Your task to perform on an android device: open chrome privacy settings Image 0: 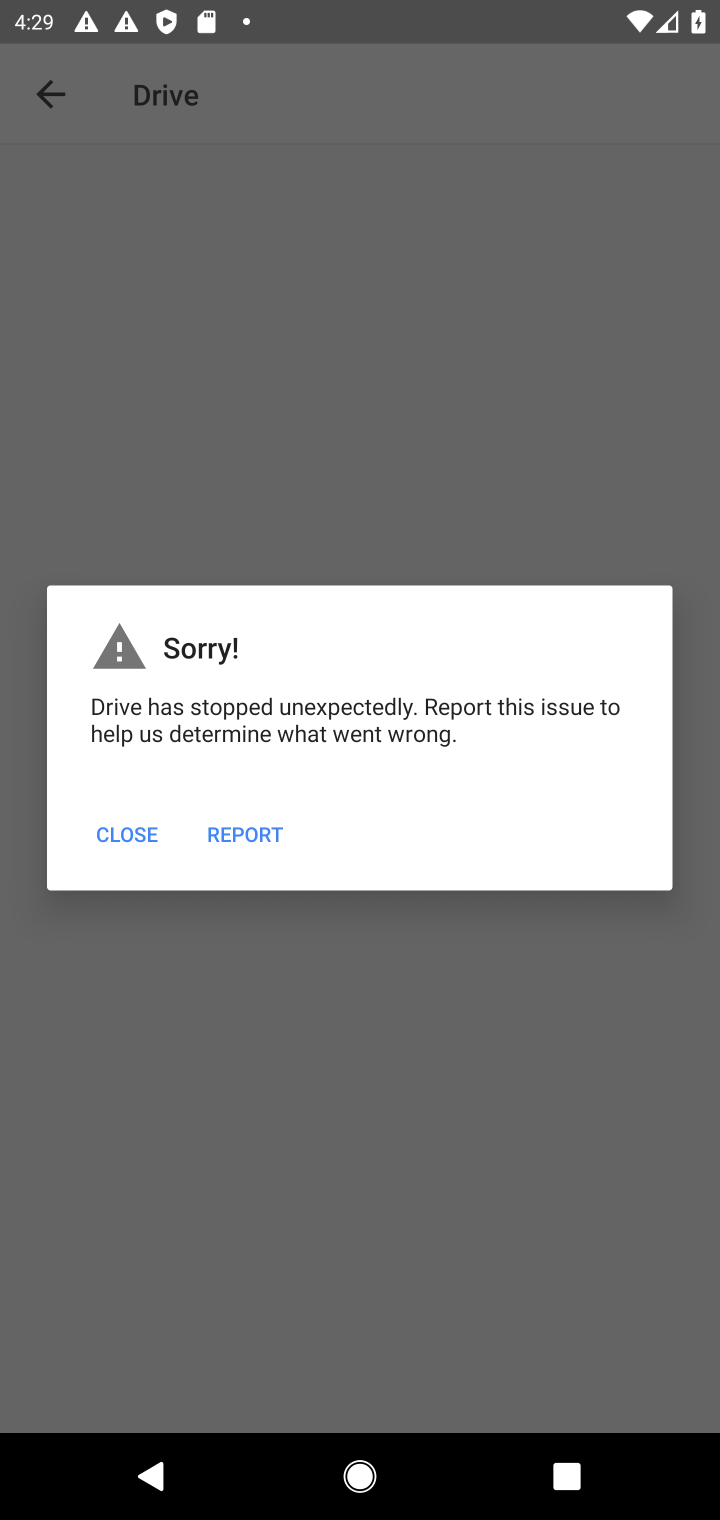
Step 0: click (135, 828)
Your task to perform on an android device: open chrome privacy settings Image 1: 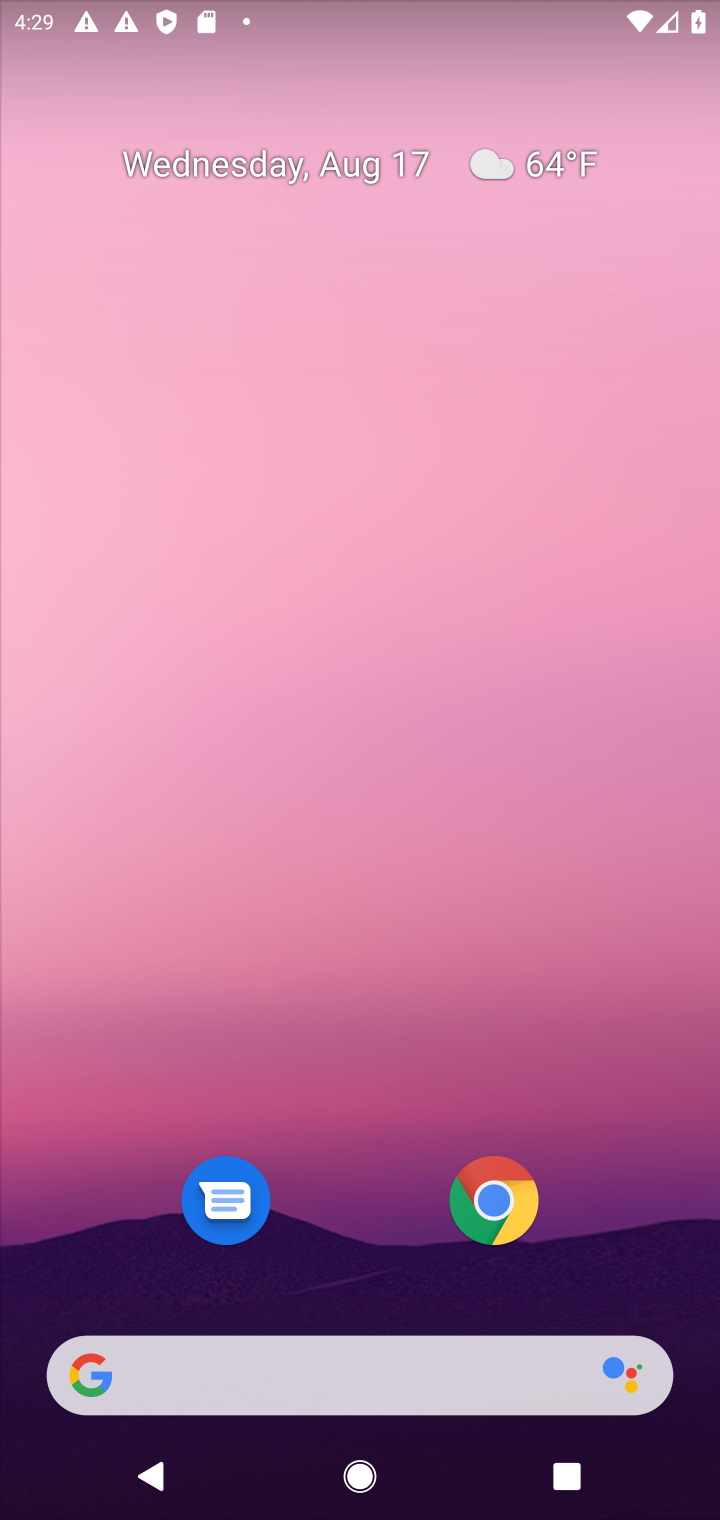
Step 1: click (494, 1208)
Your task to perform on an android device: open chrome privacy settings Image 2: 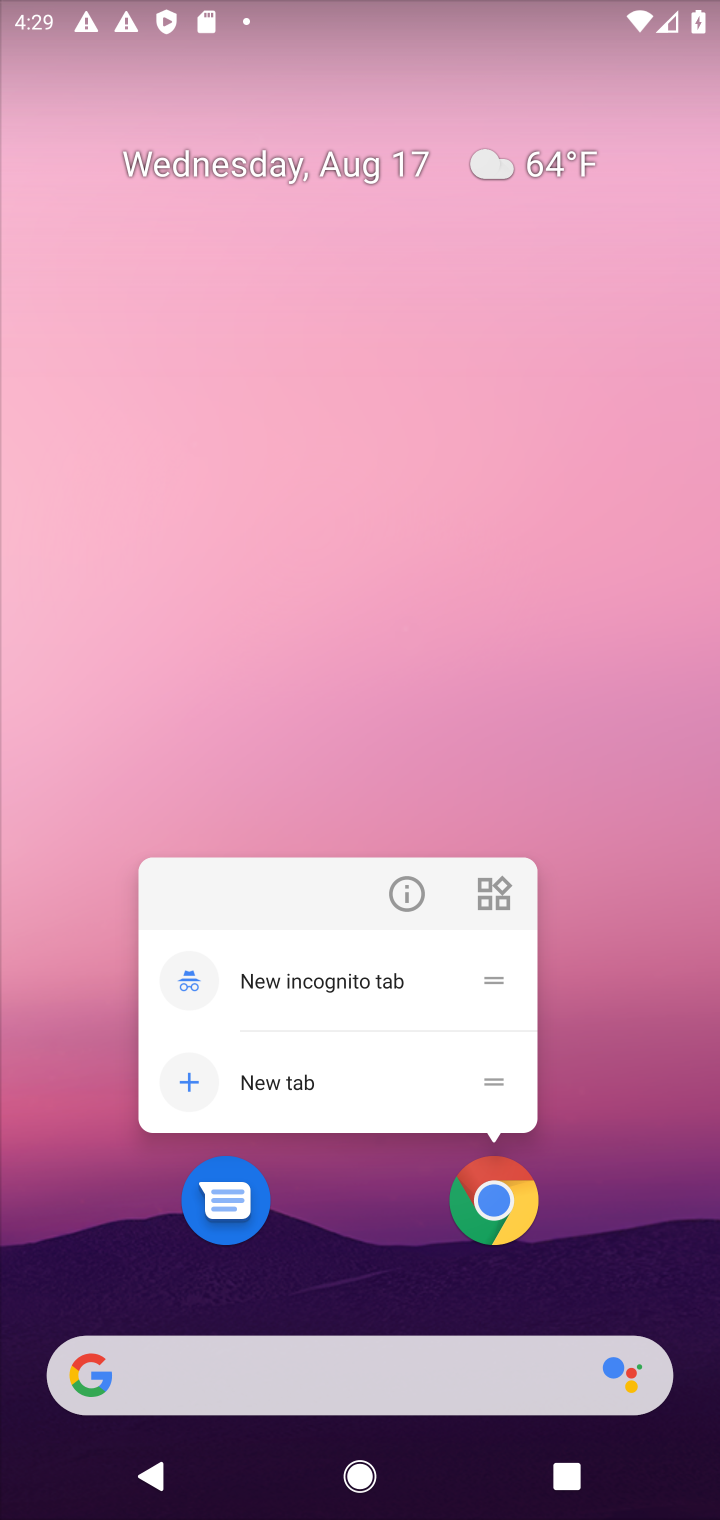
Step 2: click (484, 1199)
Your task to perform on an android device: open chrome privacy settings Image 3: 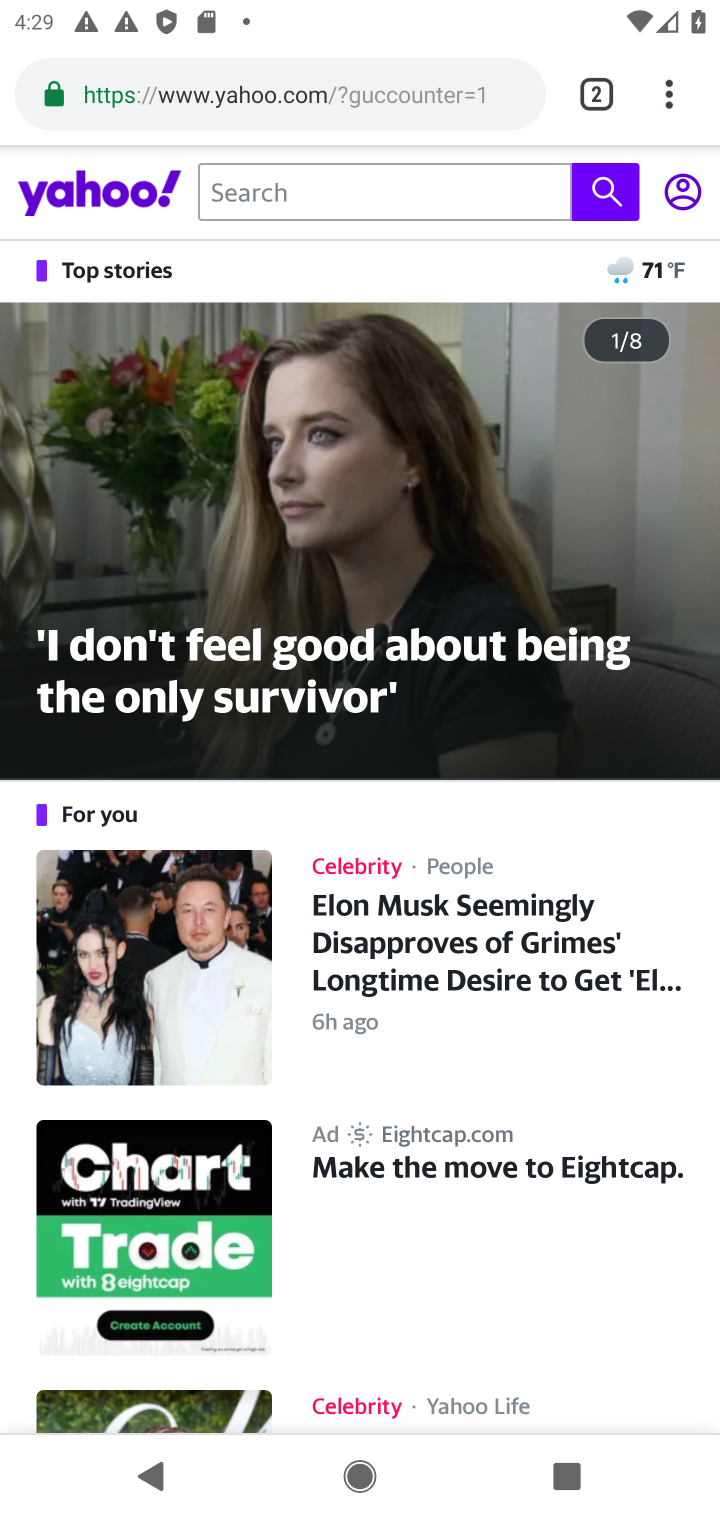
Step 3: click (667, 98)
Your task to perform on an android device: open chrome privacy settings Image 4: 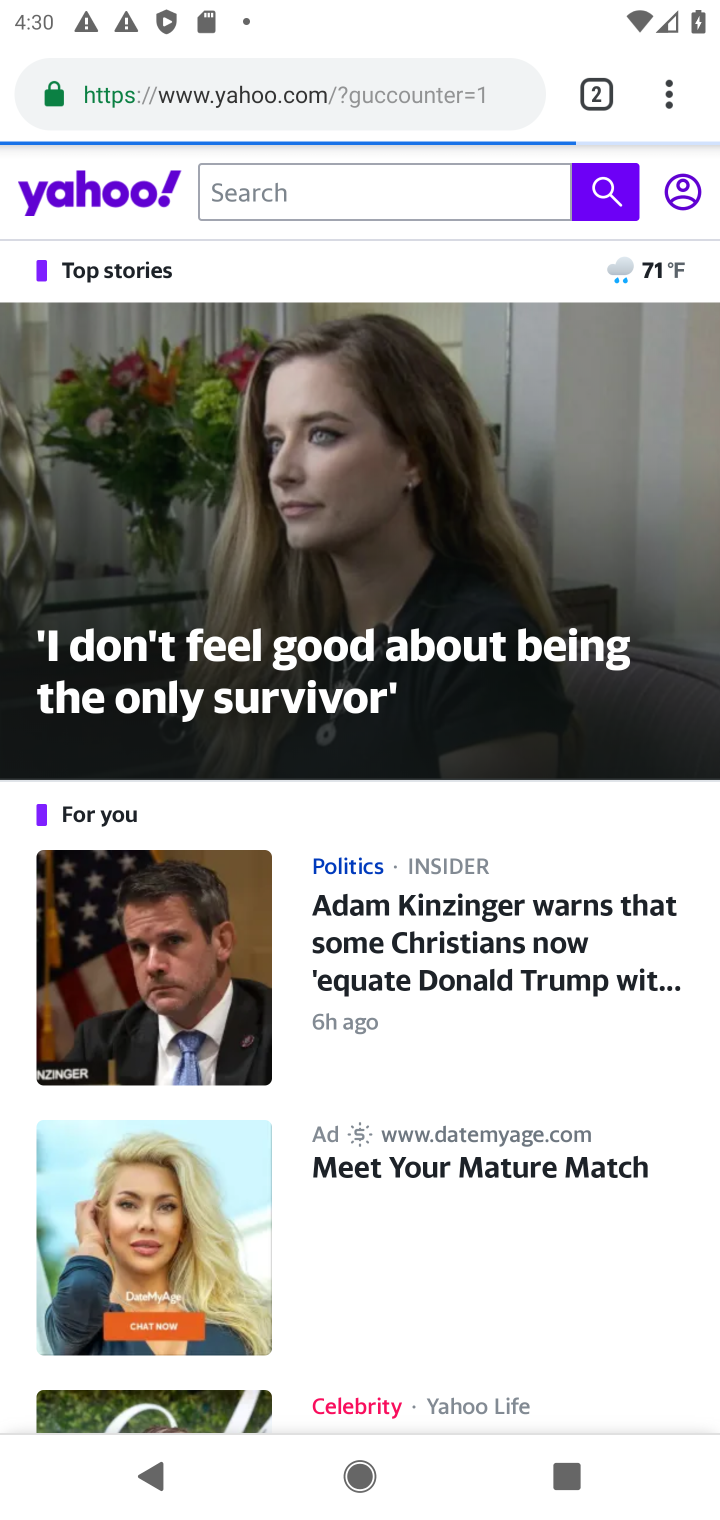
Step 4: drag from (666, 91) to (449, 557)
Your task to perform on an android device: open chrome privacy settings Image 5: 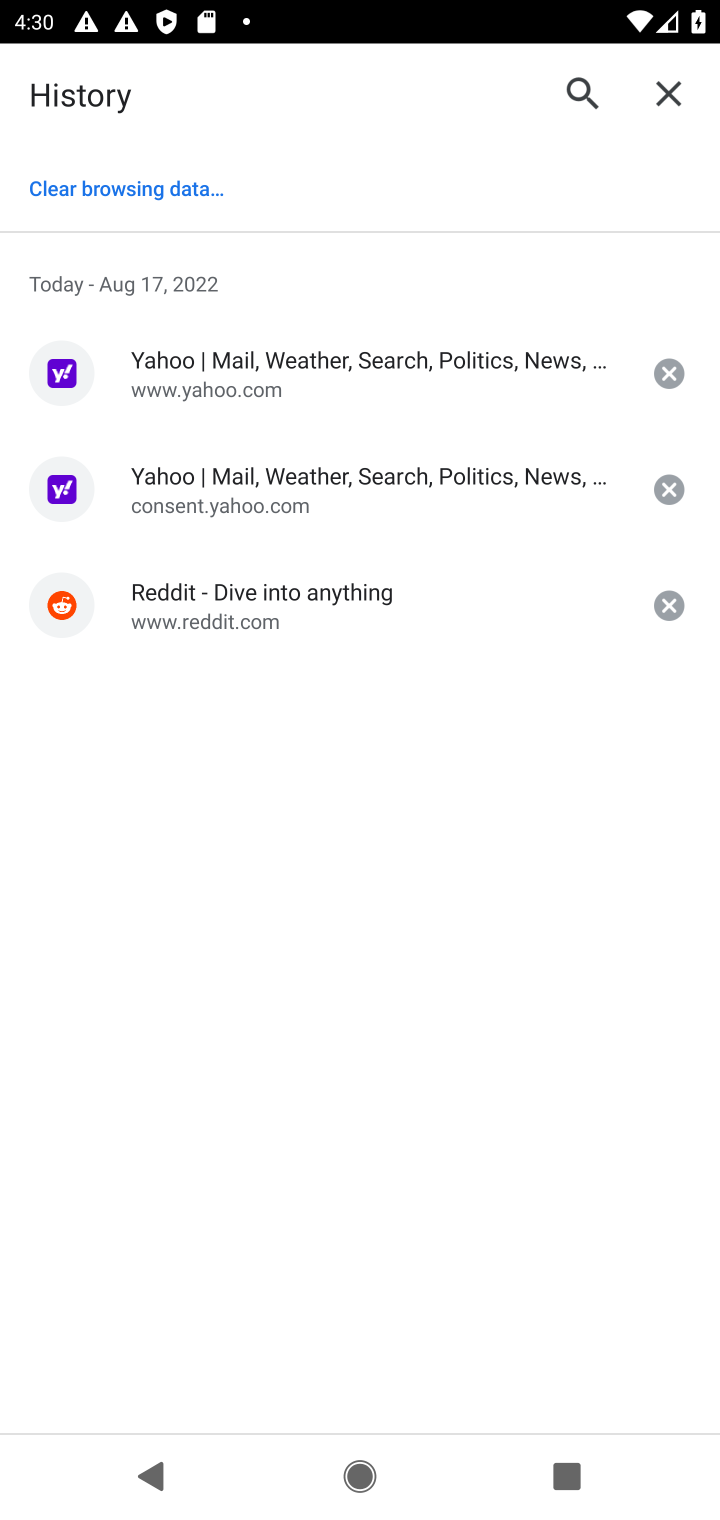
Step 5: click (678, 82)
Your task to perform on an android device: open chrome privacy settings Image 6: 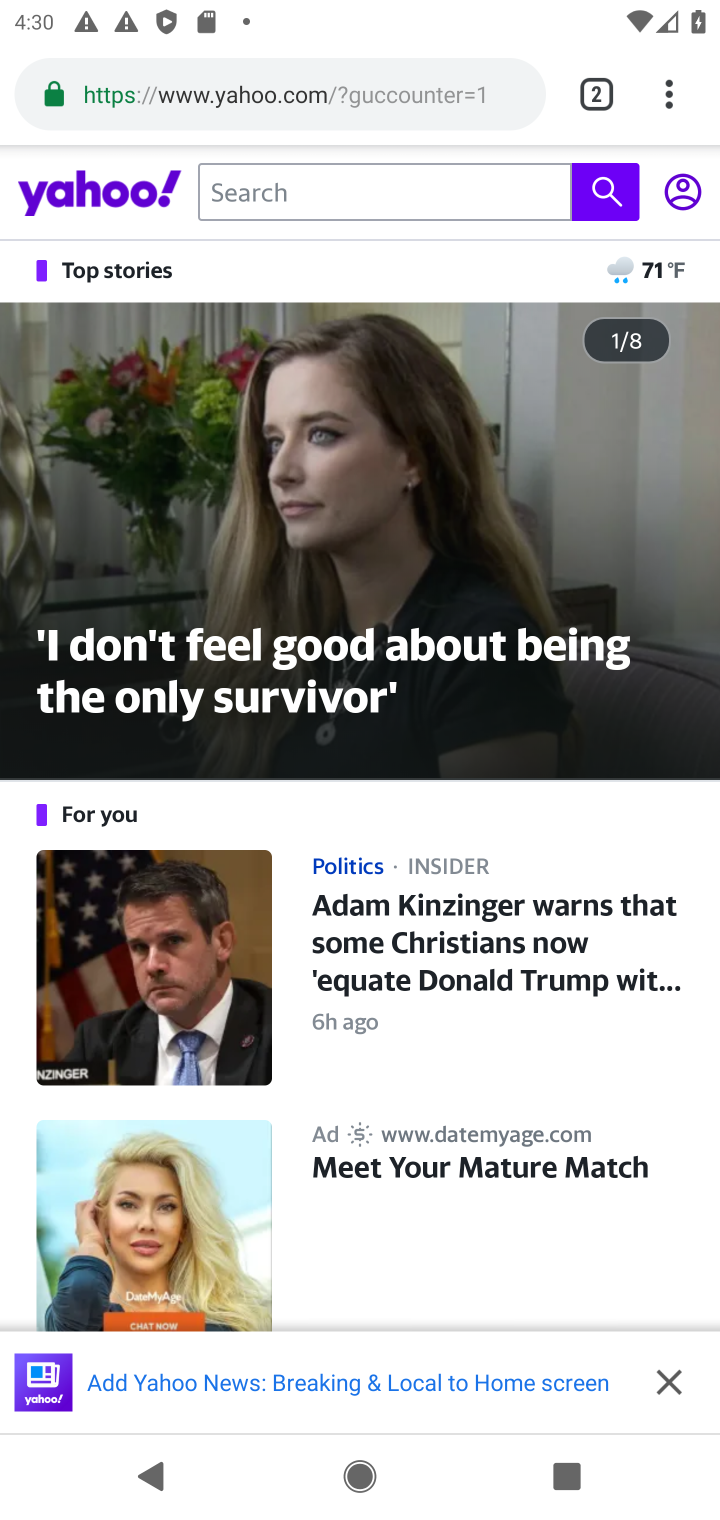
Step 6: drag from (667, 93) to (341, 1118)
Your task to perform on an android device: open chrome privacy settings Image 7: 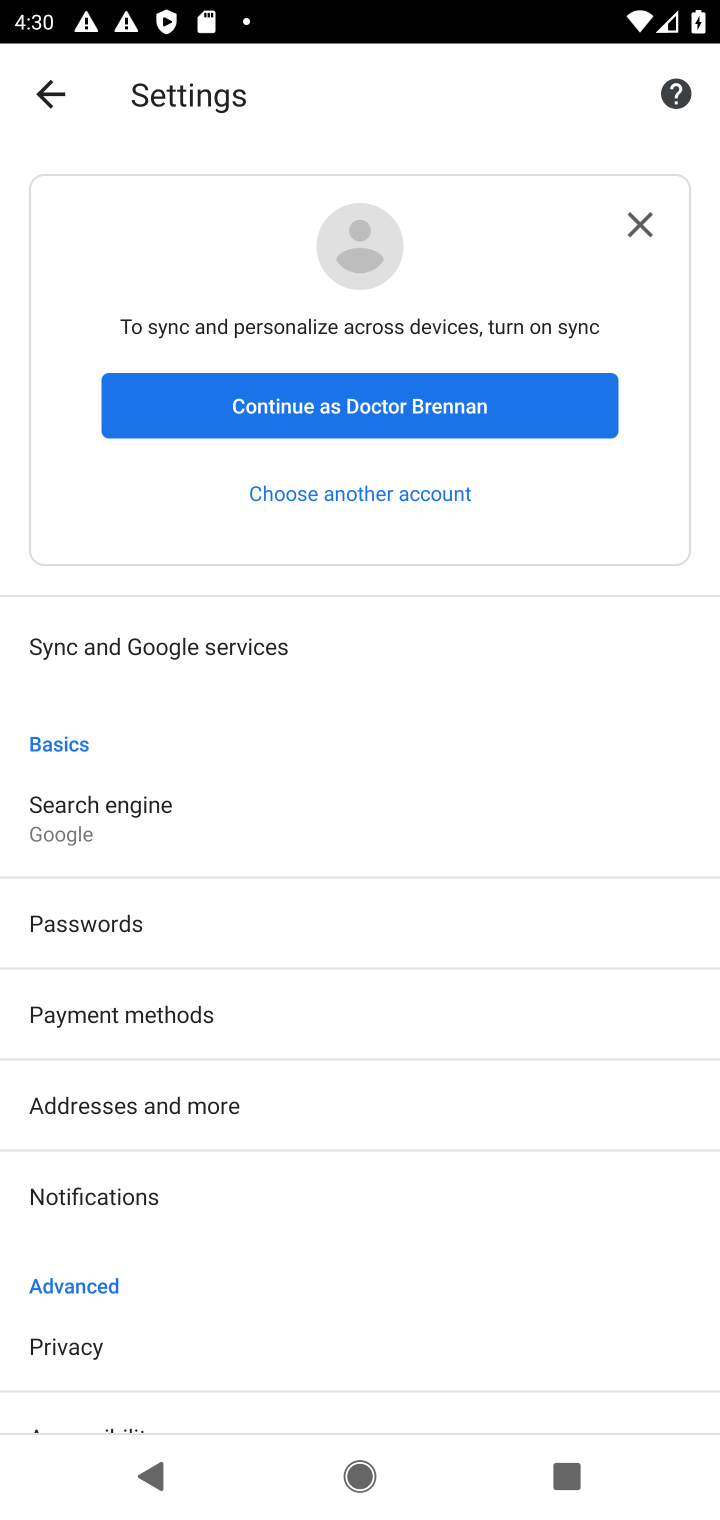
Step 7: click (81, 1339)
Your task to perform on an android device: open chrome privacy settings Image 8: 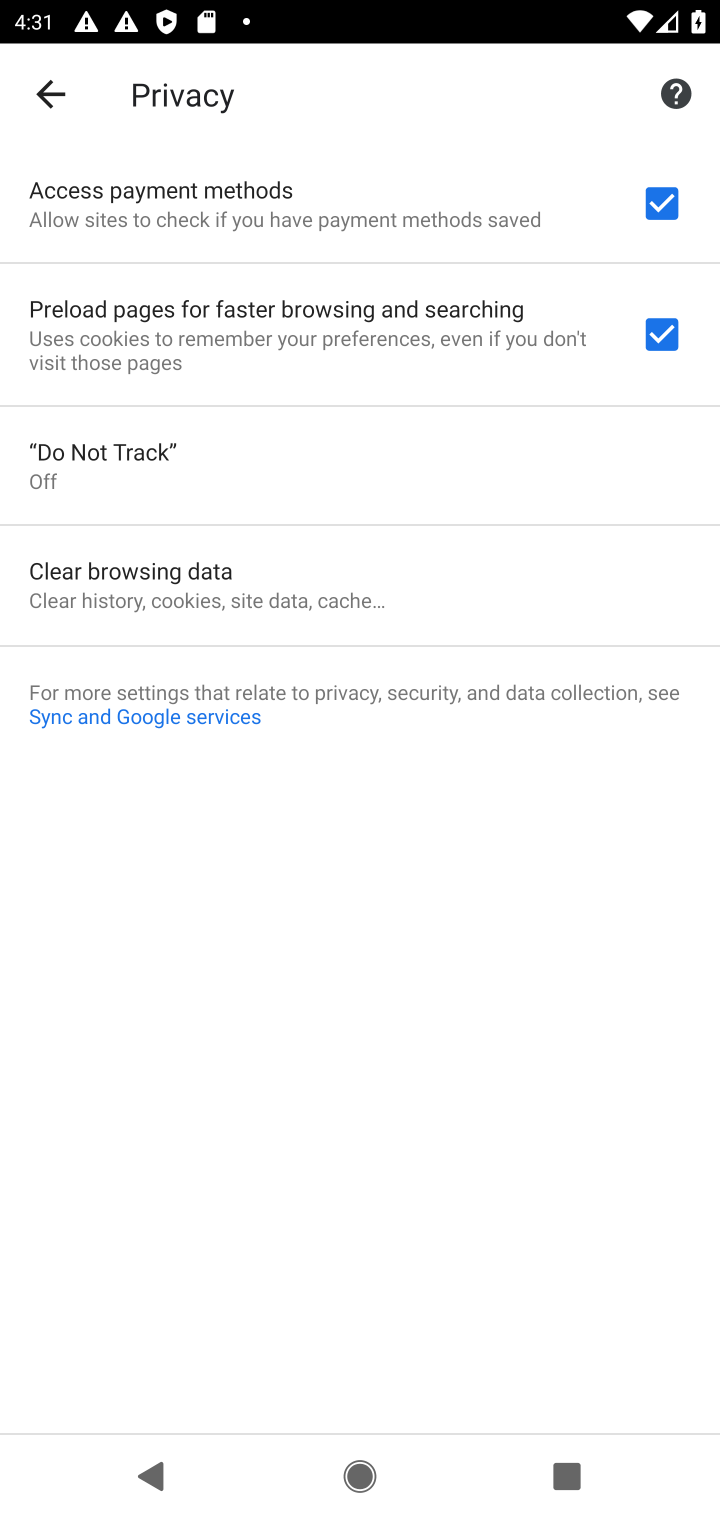
Step 8: task complete